Your task to perform on an android device: turn on translation in the chrome app Image 0: 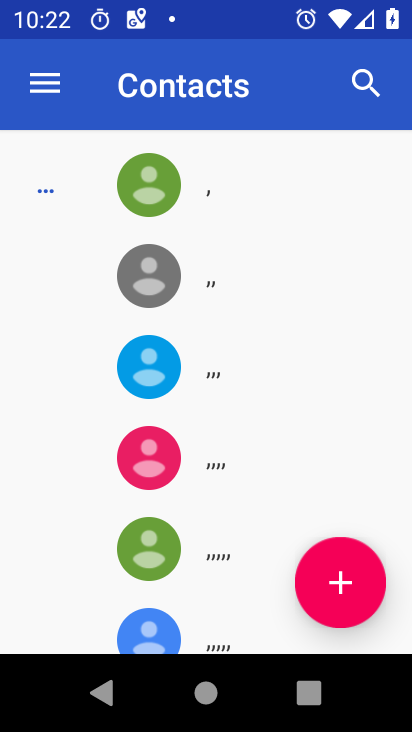
Step 0: press home button
Your task to perform on an android device: turn on translation in the chrome app Image 1: 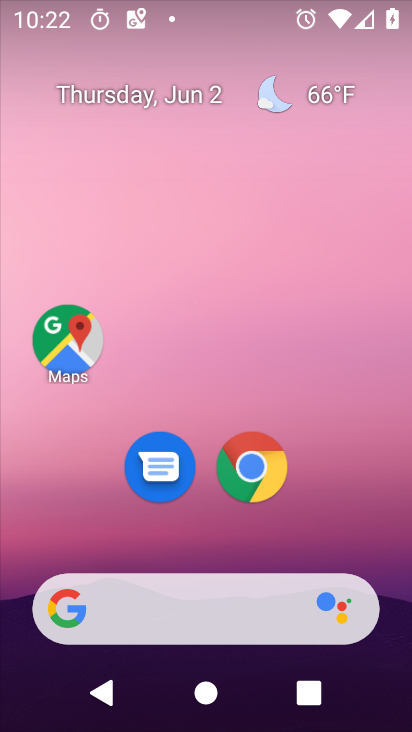
Step 1: drag from (26, 437) to (0, 631)
Your task to perform on an android device: turn on translation in the chrome app Image 2: 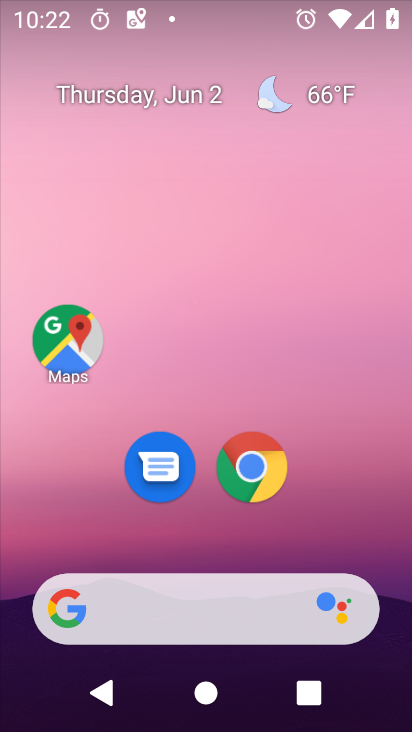
Step 2: click (242, 476)
Your task to perform on an android device: turn on translation in the chrome app Image 3: 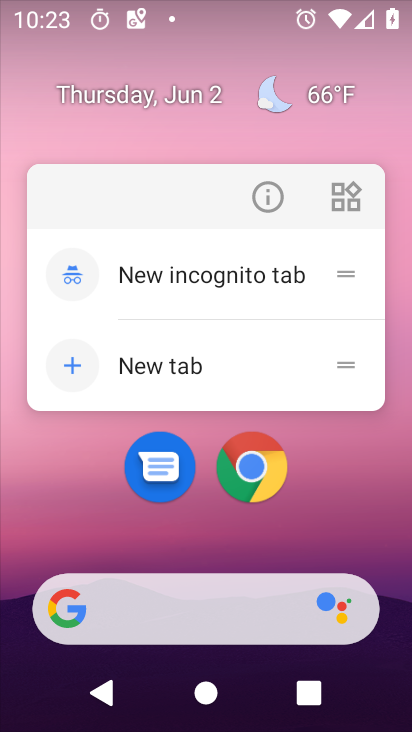
Step 3: click (255, 466)
Your task to perform on an android device: turn on translation in the chrome app Image 4: 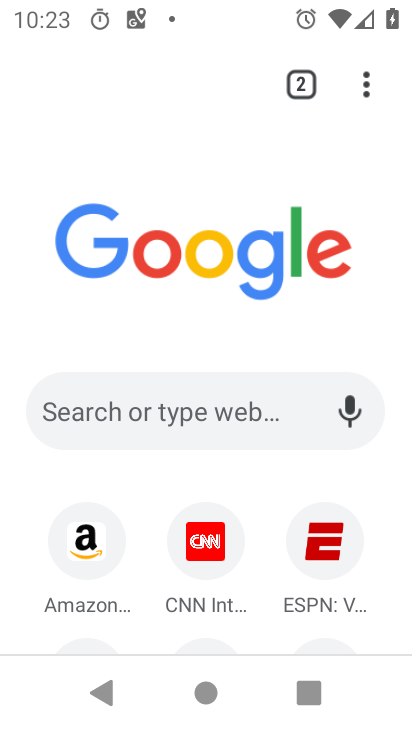
Step 4: click (375, 87)
Your task to perform on an android device: turn on translation in the chrome app Image 5: 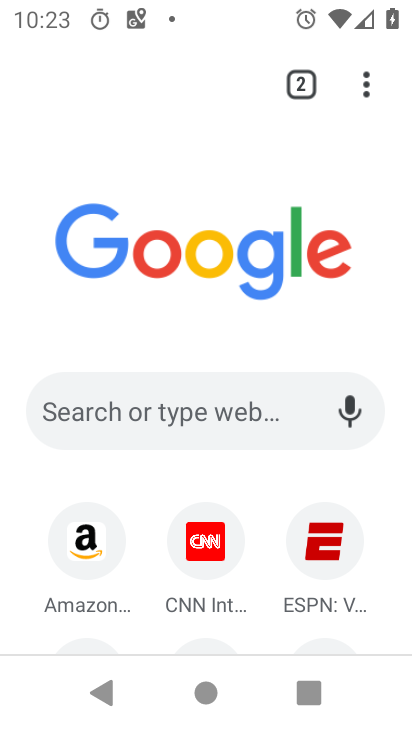
Step 5: click (367, 84)
Your task to perform on an android device: turn on translation in the chrome app Image 6: 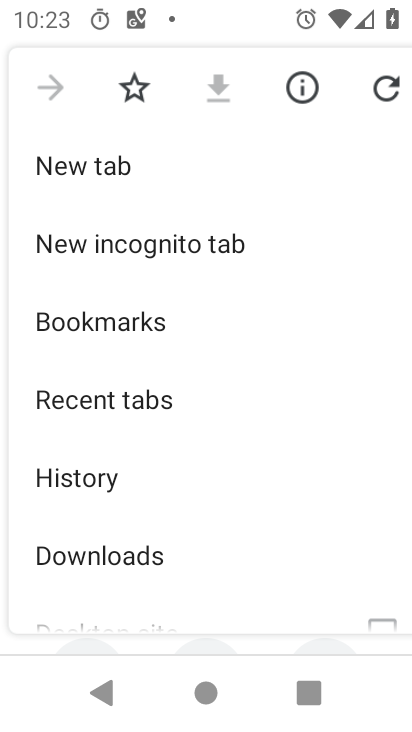
Step 6: drag from (16, 602) to (180, 119)
Your task to perform on an android device: turn on translation in the chrome app Image 7: 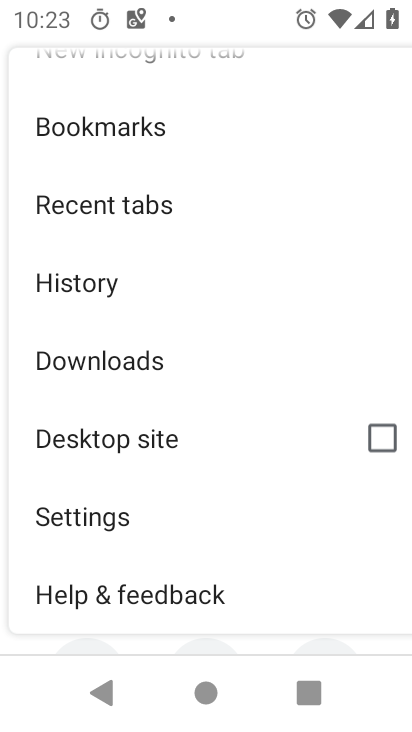
Step 7: click (88, 521)
Your task to perform on an android device: turn on translation in the chrome app Image 8: 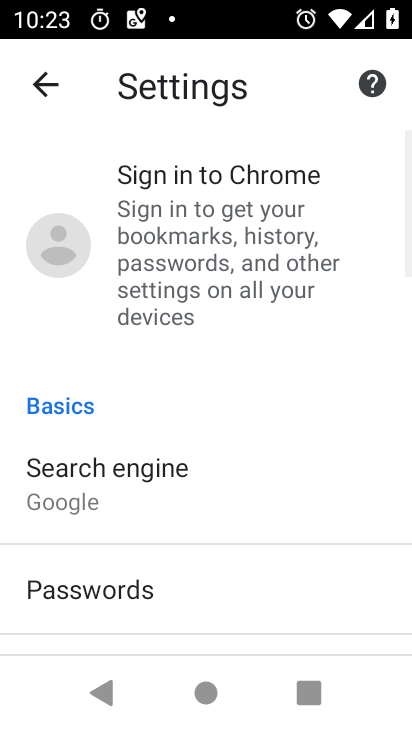
Step 8: drag from (24, 528) to (249, 104)
Your task to perform on an android device: turn on translation in the chrome app Image 9: 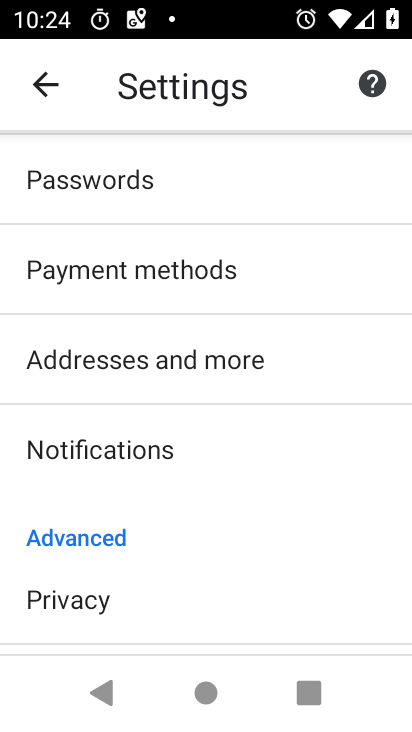
Step 9: drag from (7, 569) to (184, 175)
Your task to perform on an android device: turn on translation in the chrome app Image 10: 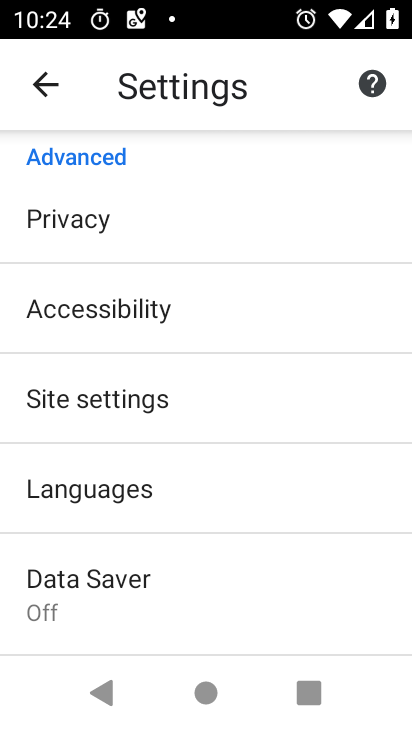
Step 10: click (80, 490)
Your task to perform on an android device: turn on translation in the chrome app Image 11: 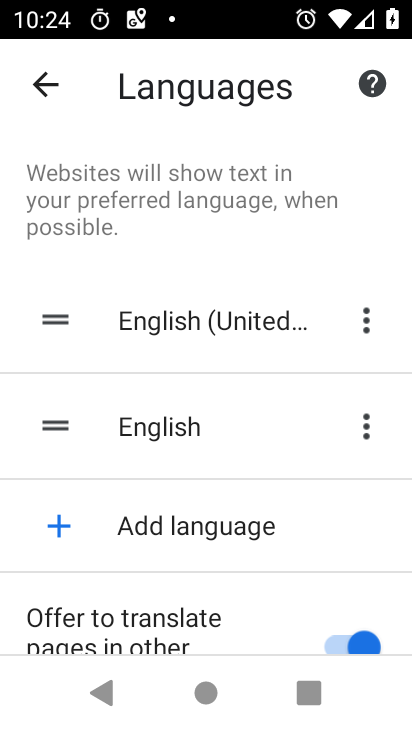
Step 11: task complete